Your task to perform on an android device: find snoozed emails in the gmail app Image 0: 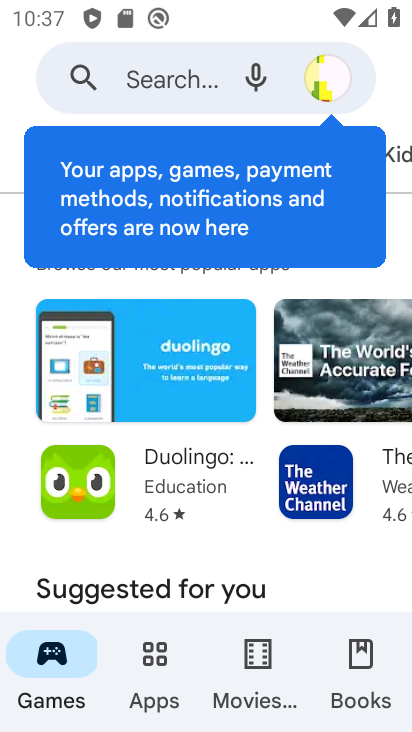
Step 0: press home button
Your task to perform on an android device: find snoozed emails in the gmail app Image 1: 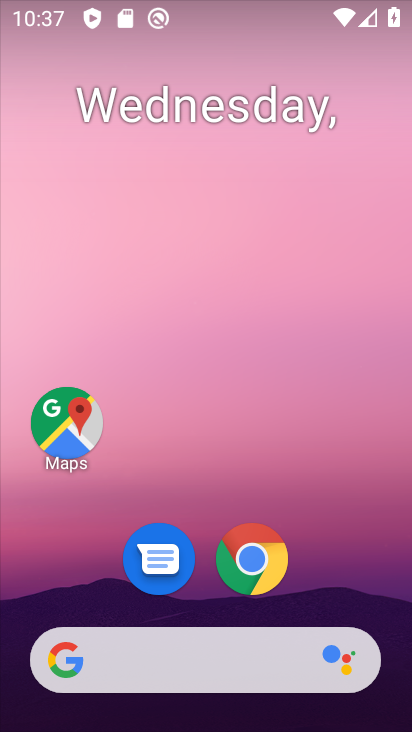
Step 1: drag from (383, 540) to (298, 12)
Your task to perform on an android device: find snoozed emails in the gmail app Image 2: 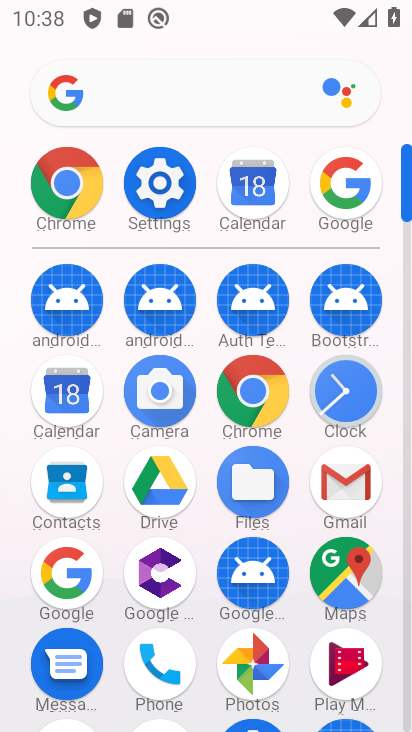
Step 2: click (363, 501)
Your task to perform on an android device: find snoozed emails in the gmail app Image 3: 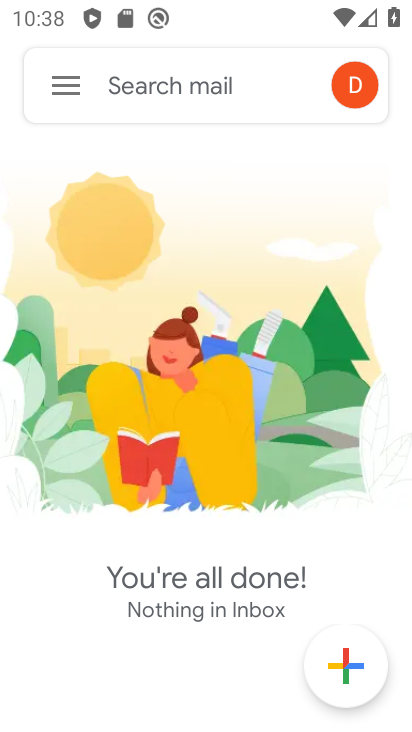
Step 3: click (43, 86)
Your task to perform on an android device: find snoozed emails in the gmail app Image 4: 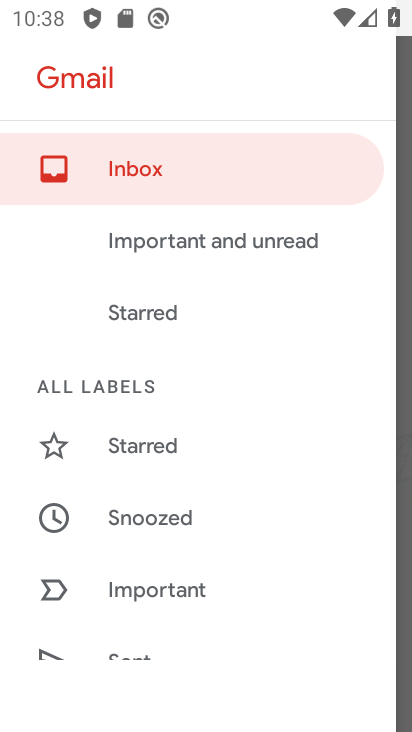
Step 4: click (168, 513)
Your task to perform on an android device: find snoozed emails in the gmail app Image 5: 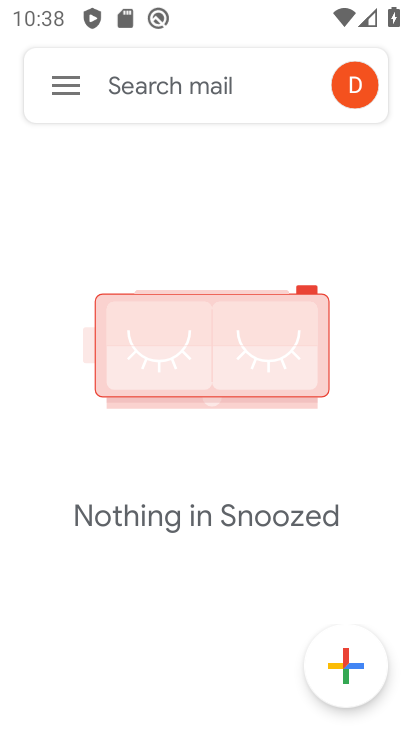
Step 5: task complete